Your task to perform on an android device: Go to Yahoo.com Image 0: 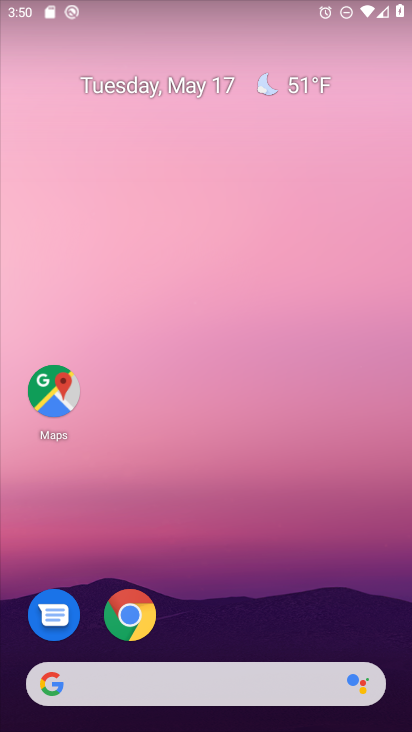
Step 0: click (124, 611)
Your task to perform on an android device: Go to Yahoo.com Image 1: 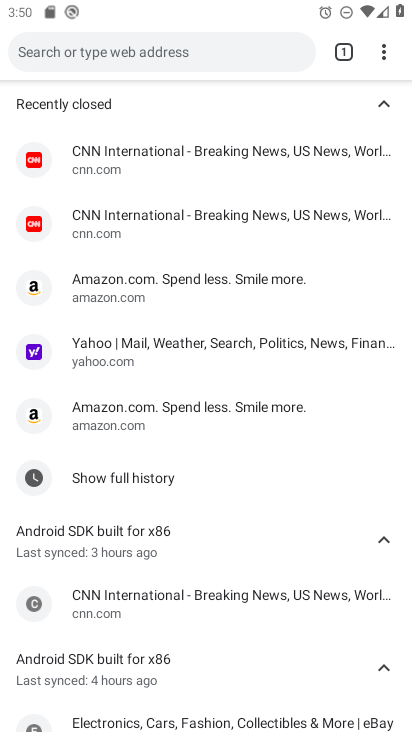
Step 1: click (339, 47)
Your task to perform on an android device: Go to Yahoo.com Image 2: 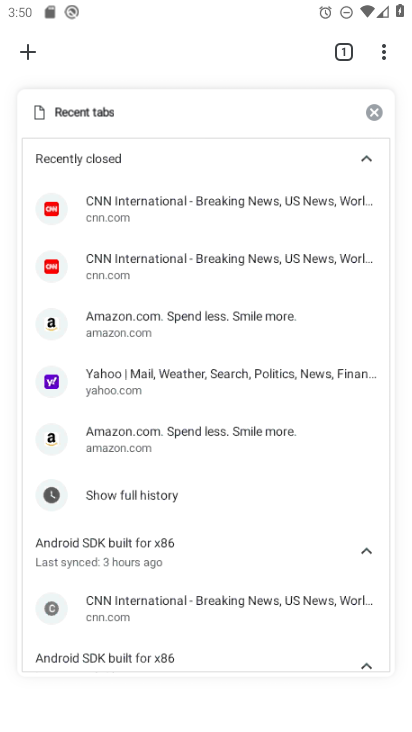
Step 2: click (31, 52)
Your task to perform on an android device: Go to Yahoo.com Image 3: 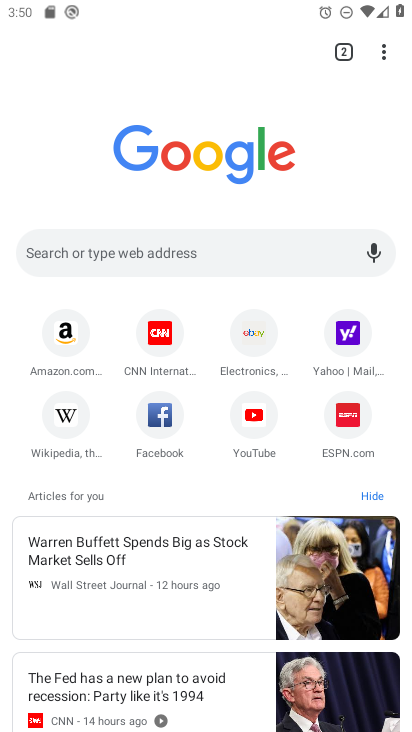
Step 3: click (344, 327)
Your task to perform on an android device: Go to Yahoo.com Image 4: 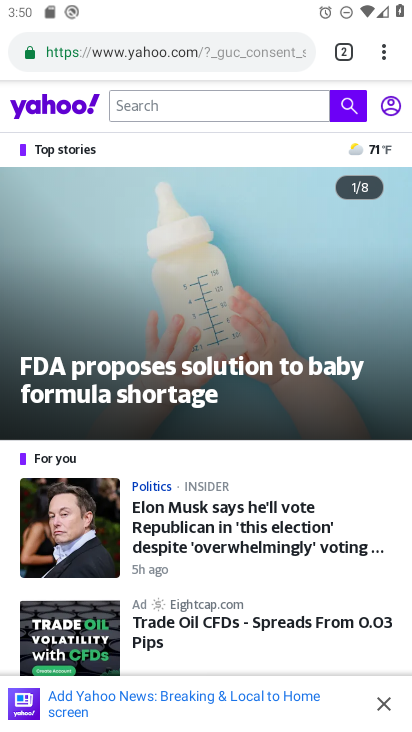
Step 4: click (384, 704)
Your task to perform on an android device: Go to Yahoo.com Image 5: 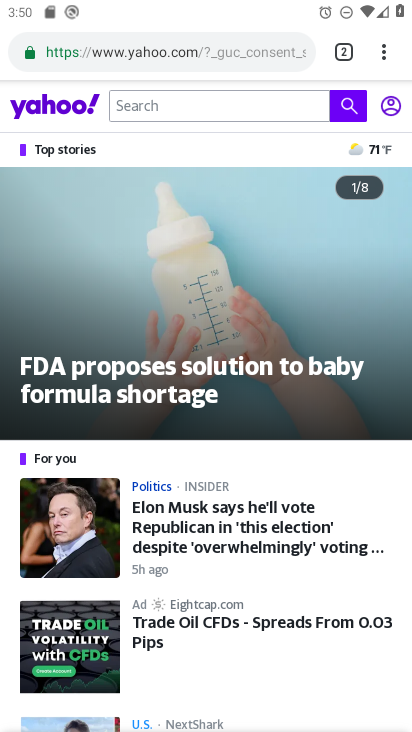
Step 5: task complete